Your task to perform on an android device: Open maps Image 0: 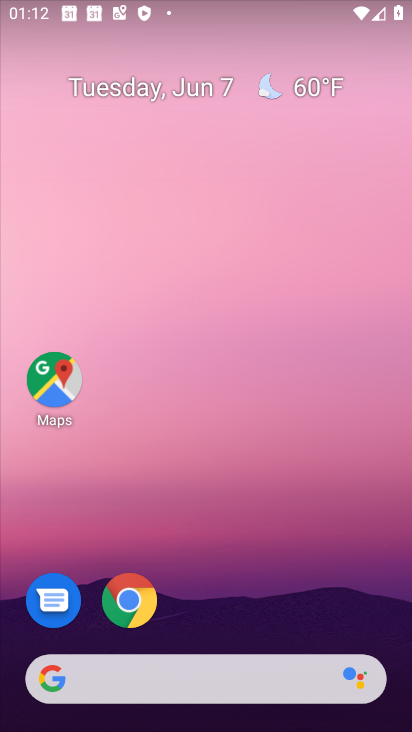
Step 0: drag from (224, 731) to (234, 166)
Your task to perform on an android device: Open maps Image 1: 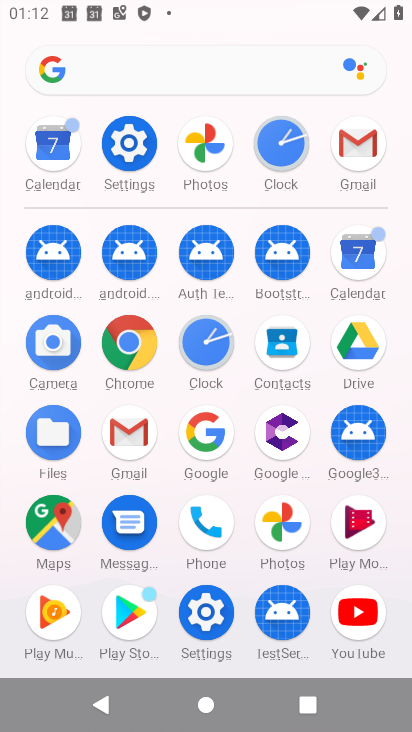
Step 1: click (37, 513)
Your task to perform on an android device: Open maps Image 2: 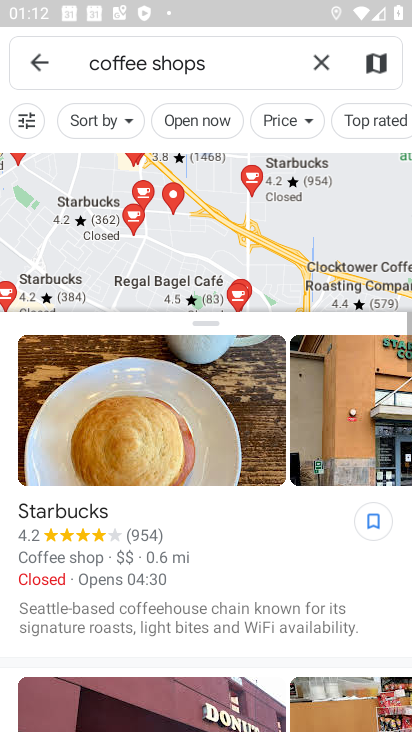
Step 2: task complete